Your task to perform on an android device: show emergency info Image 0: 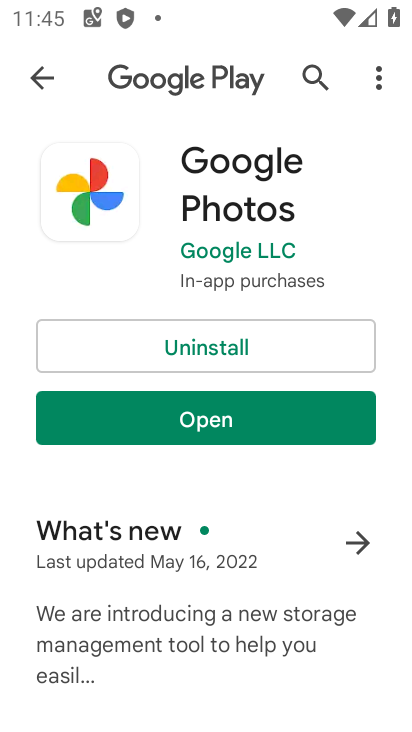
Step 0: press home button
Your task to perform on an android device: show emergency info Image 1: 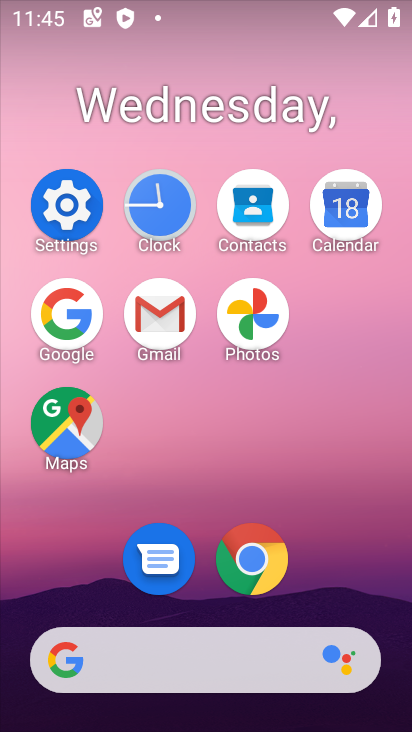
Step 1: click (75, 235)
Your task to perform on an android device: show emergency info Image 2: 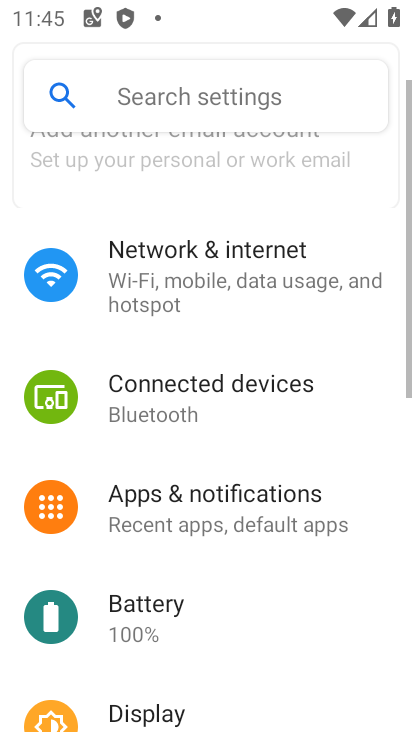
Step 2: drag from (250, 483) to (262, 226)
Your task to perform on an android device: show emergency info Image 3: 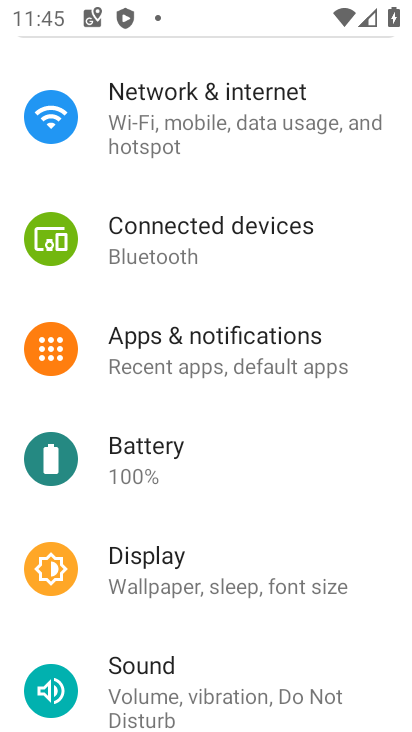
Step 3: drag from (290, 631) to (309, 262)
Your task to perform on an android device: show emergency info Image 4: 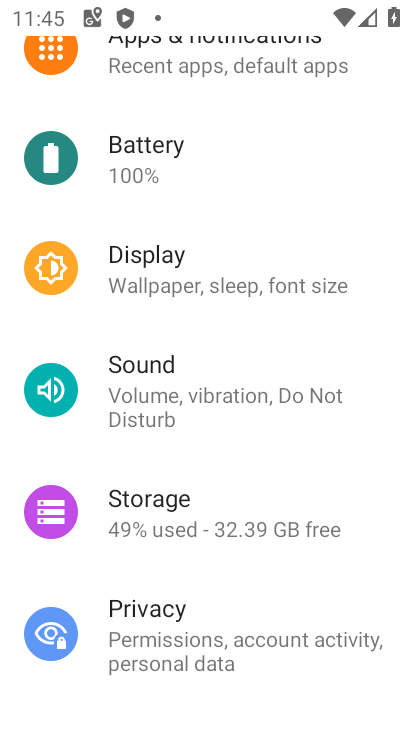
Step 4: drag from (266, 570) to (290, 240)
Your task to perform on an android device: show emergency info Image 5: 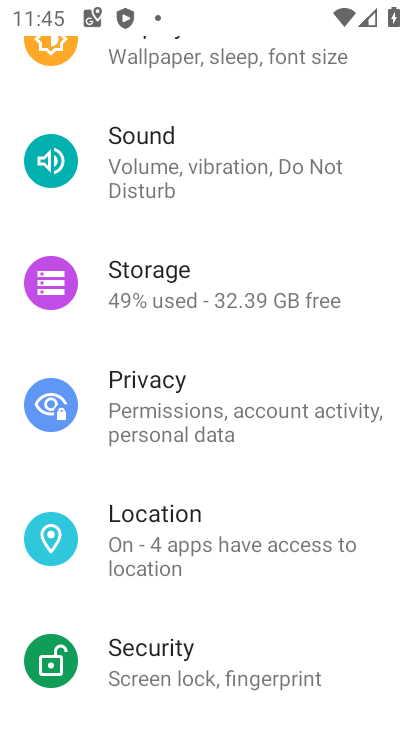
Step 5: drag from (265, 614) to (299, 264)
Your task to perform on an android device: show emergency info Image 6: 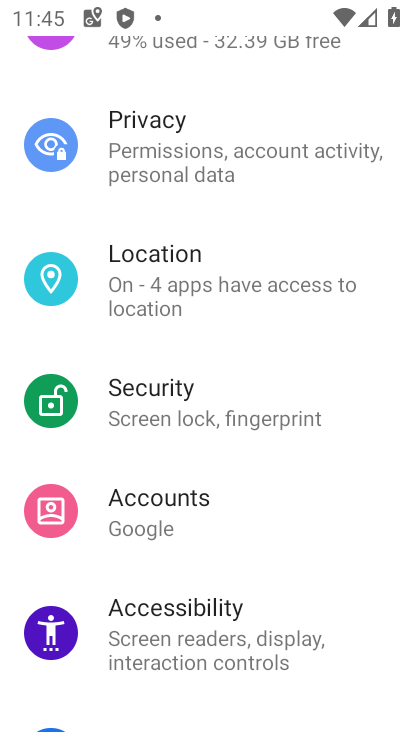
Step 6: drag from (290, 623) to (334, 268)
Your task to perform on an android device: show emergency info Image 7: 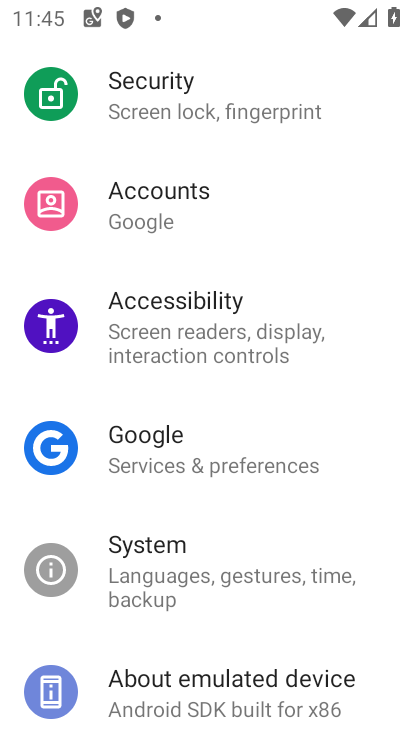
Step 7: drag from (314, 658) to (348, 369)
Your task to perform on an android device: show emergency info Image 8: 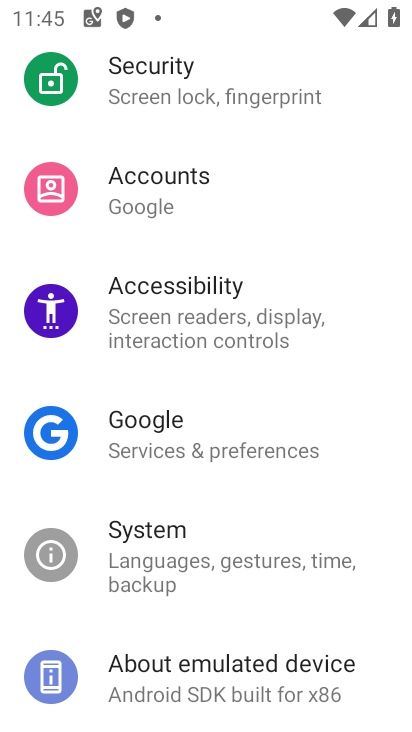
Step 8: click (262, 668)
Your task to perform on an android device: show emergency info Image 9: 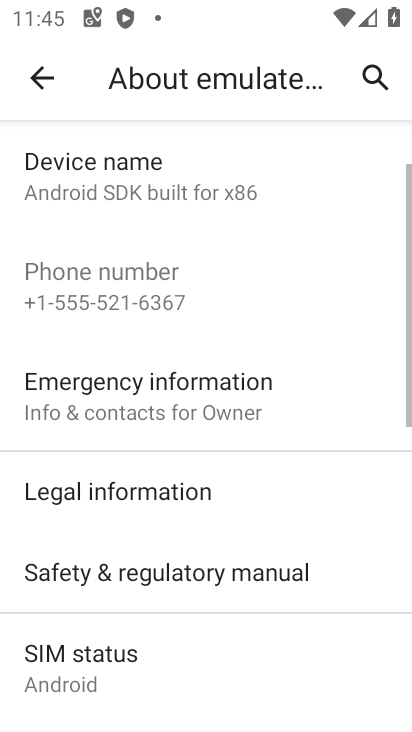
Step 9: click (179, 420)
Your task to perform on an android device: show emergency info Image 10: 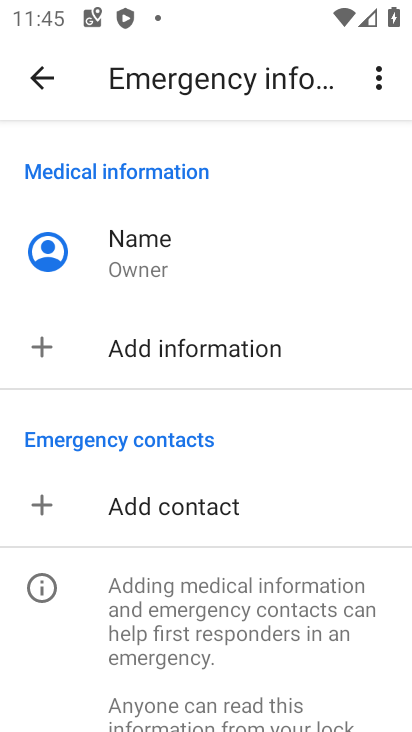
Step 10: task complete